Your task to perform on an android device: Show me productivity apps on the Play Store Image 0: 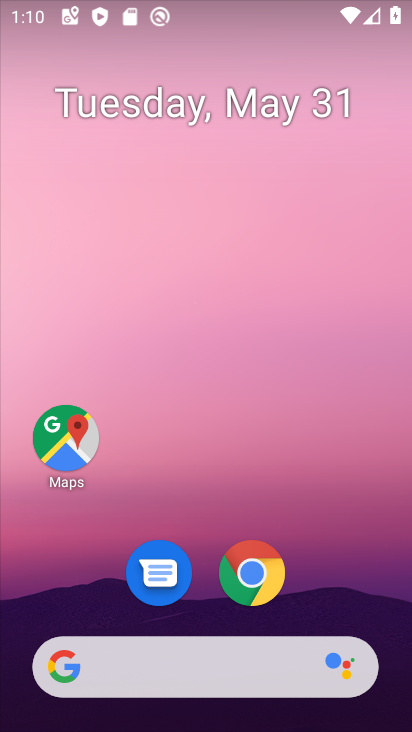
Step 0: drag from (348, 607) to (345, 129)
Your task to perform on an android device: Show me productivity apps on the Play Store Image 1: 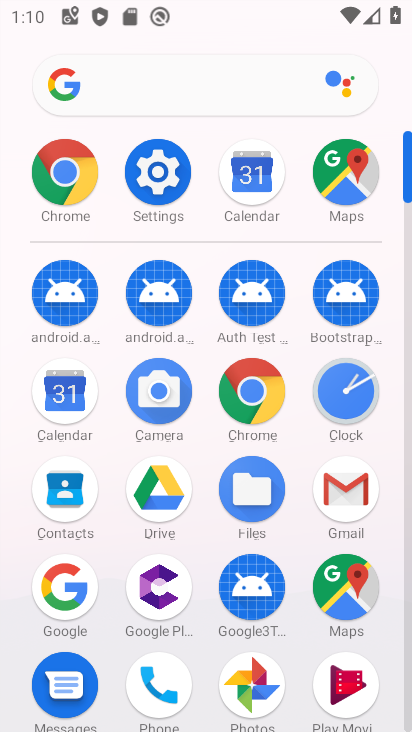
Step 1: drag from (195, 622) to (210, 454)
Your task to perform on an android device: Show me productivity apps on the Play Store Image 2: 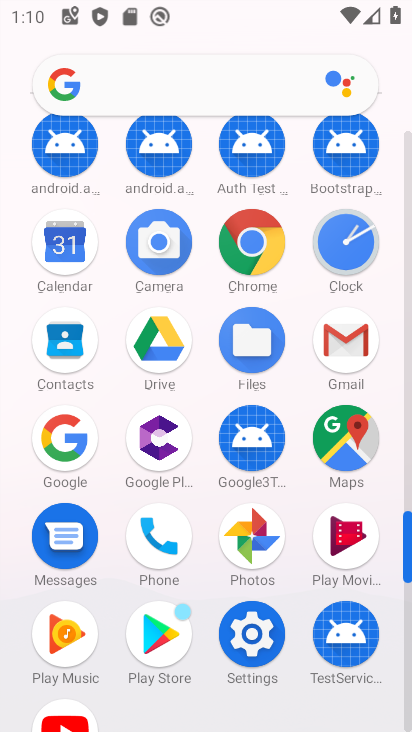
Step 2: drag from (201, 629) to (205, 457)
Your task to perform on an android device: Show me productivity apps on the Play Store Image 3: 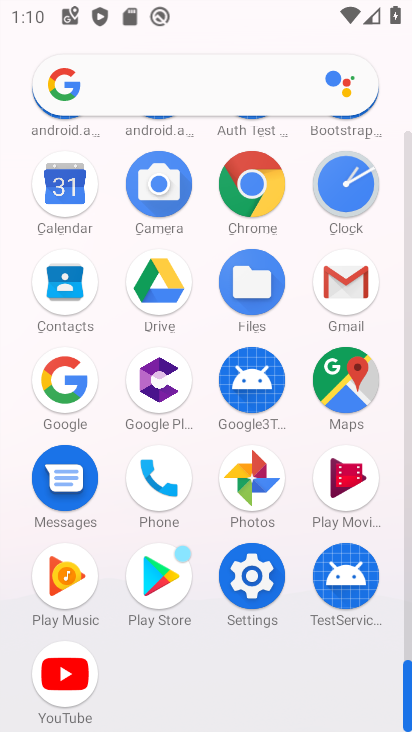
Step 3: click (171, 579)
Your task to perform on an android device: Show me productivity apps on the Play Store Image 4: 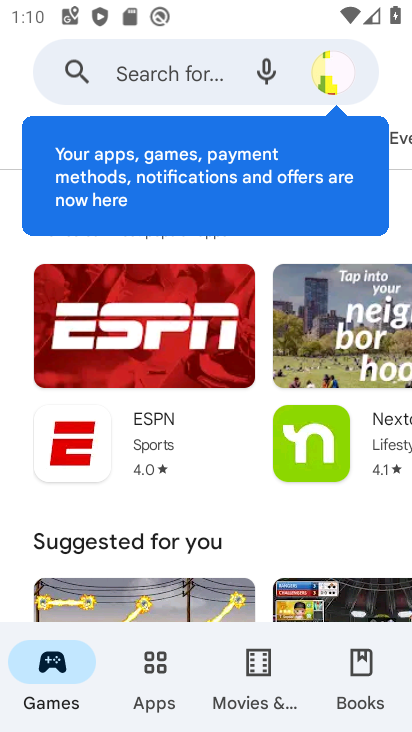
Step 4: click (167, 672)
Your task to perform on an android device: Show me productivity apps on the Play Store Image 5: 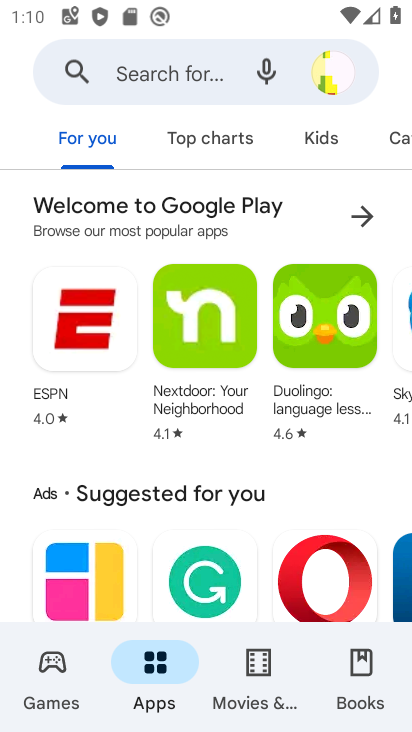
Step 5: task complete